Your task to perform on an android device: Go to Wikipedia Image 0: 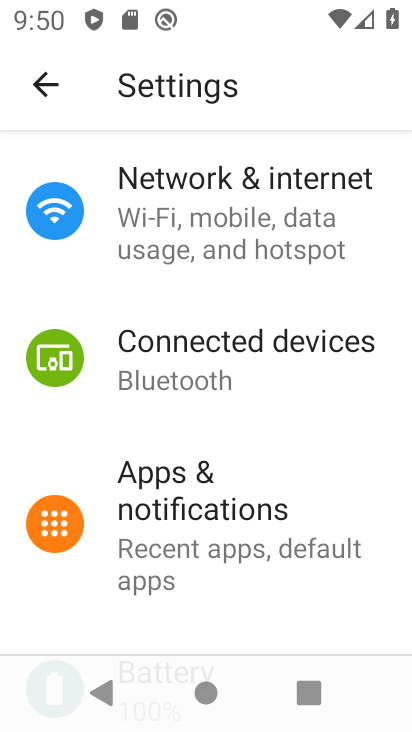
Step 0: press home button
Your task to perform on an android device: Go to Wikipedia Image 1: 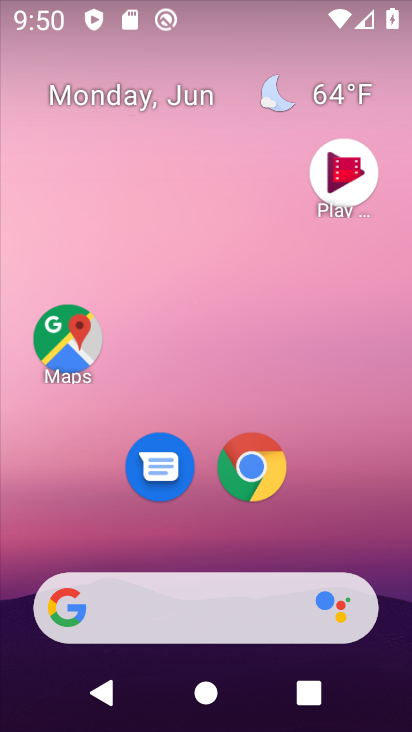
Step 1: click (259, 461)
Your task to perform on an android device: Go to Wikipedia Image 2: 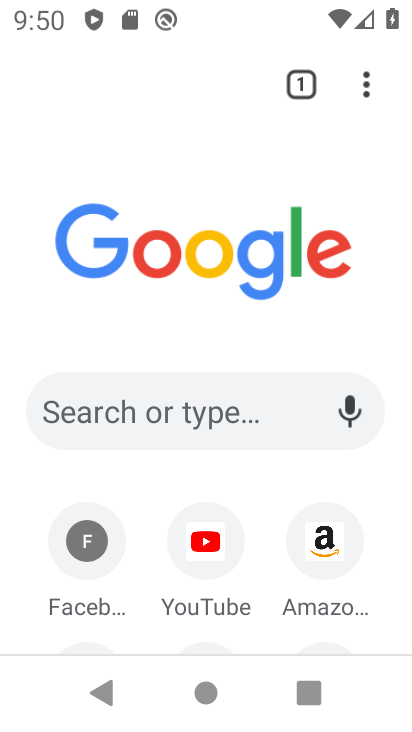
Step 2: drag from (233, 540) to (326, 243)
Your task to perform on an android device: Go to Wikipedia Image 3: 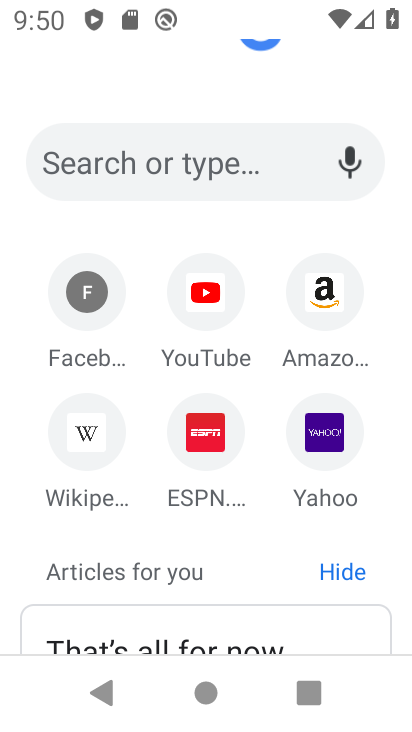
Step 3: click (100, 436)
Your task to perform on an android device: Go to Wikipedia Image 4: 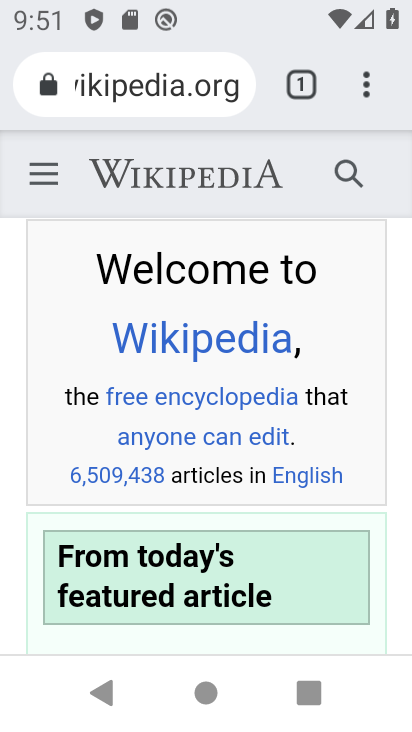
Step 4: task complete